Your task to perform on an android device: Go to calendar. Show me events next week Image 0: 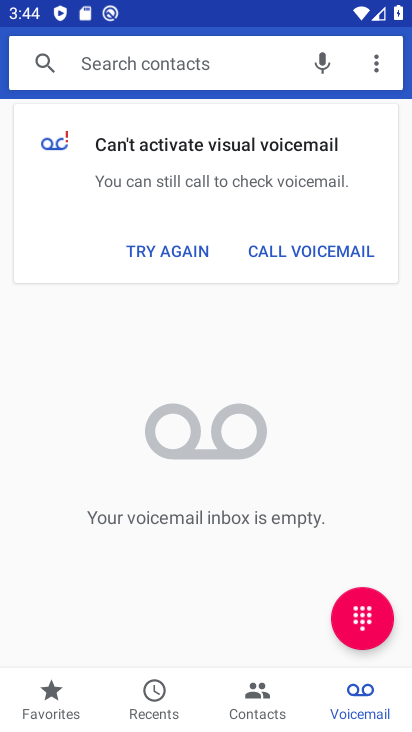
Step 0: press home button
Your task to perform on an android device: Go to calendar. Show me events next week Image 1: 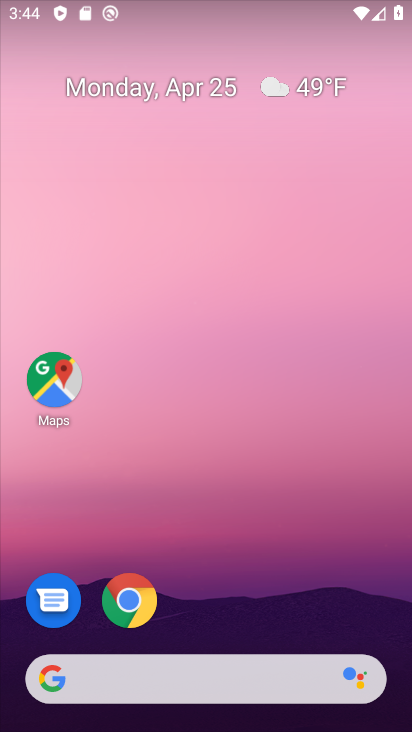
Step 1: drag from (289, 574) to (276, 20)
Your task to perform on an android device: Go to calendar. Show me events next week Image 2: 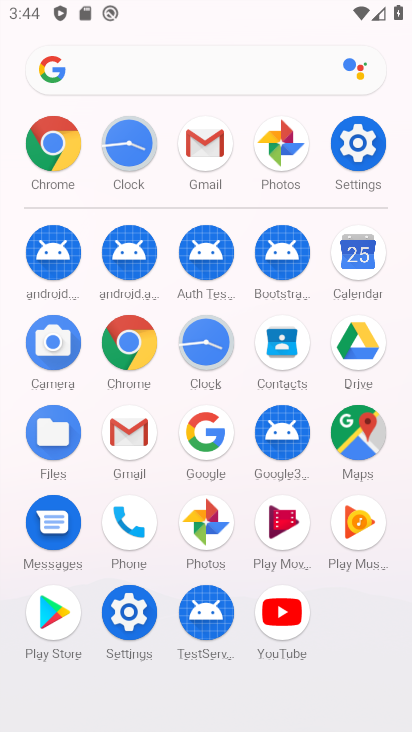
Step 2: click (353, 245)
Your task to perform on an android device: Go to calendar. Show me events next week Image 3: 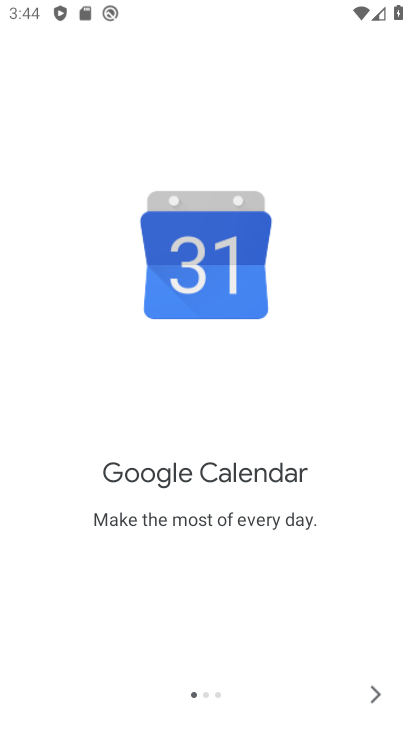
Step 3: click (375, 688)
Your task to perform on an android device: Go to calendar. Show me events next week Image 4: 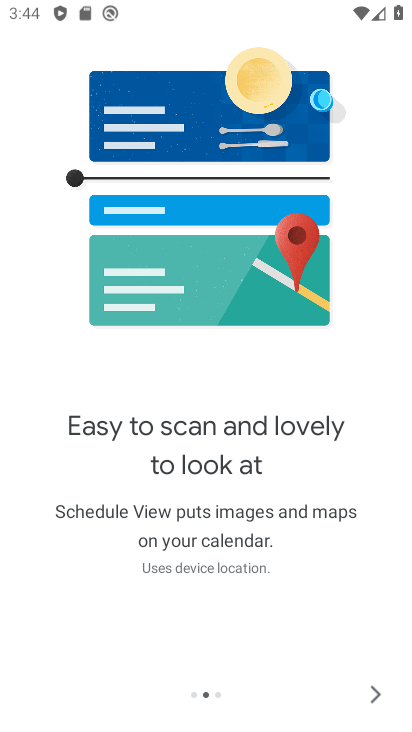
Step 4: click (366, 686)
Your task to perform on an android device: Go to calendar. Show me events next week Image 5: 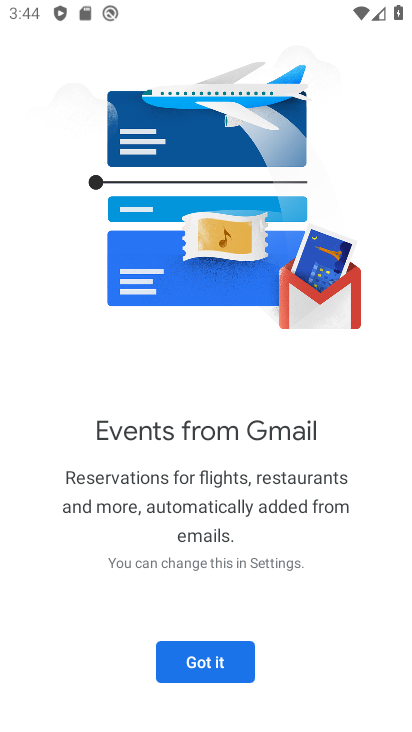
Step 5: click (233, 659)
Your task to perform on an android device: Go to calendar. Show me events next week Image 6: 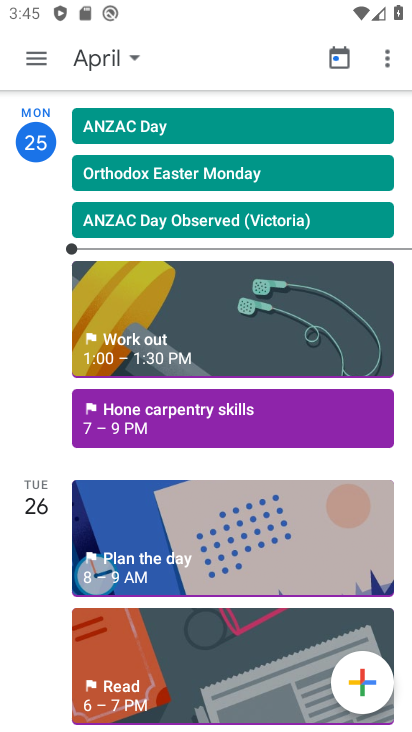
Step 6: click (32, 51)
Your task to perform on an android device: Go to calendar. Show me events next week Image 7: 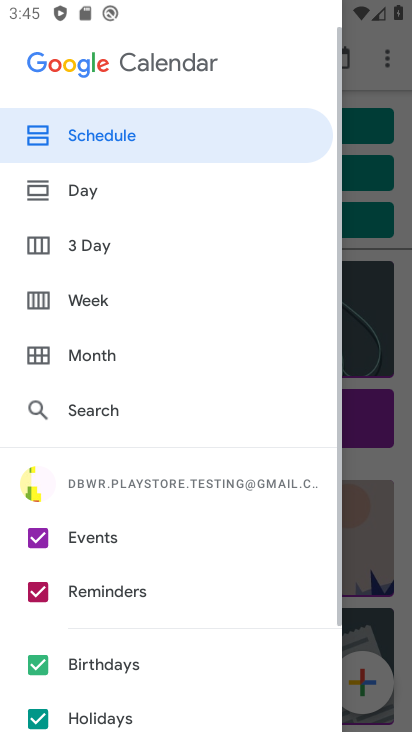
Step 7: click (42, 297)
Your task to perform on an android device: Go to calendar. Show me events next week Image 8: 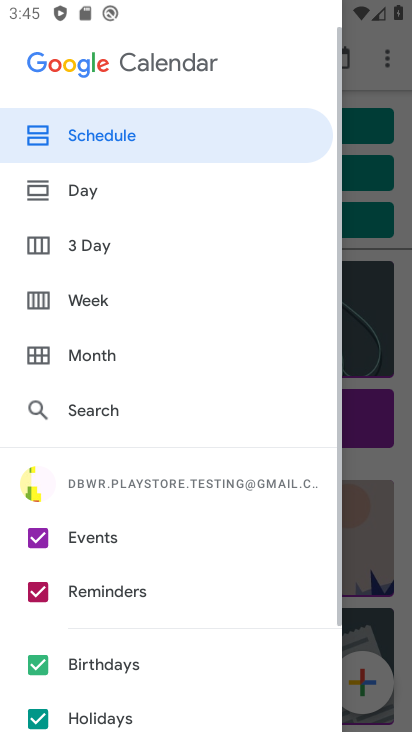
Step 8: click (77, 296)
Your task to perform on an android device: Go to calendar. Show me events next week Image 9: 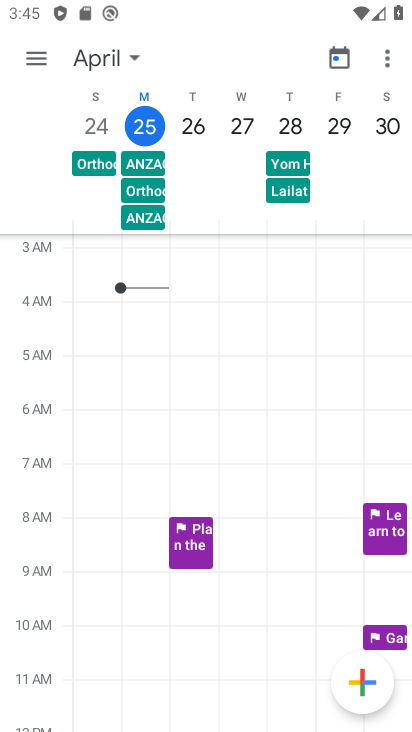
Step 9: task complete